Your task to perform on an android device: Empty the shopping cart on bestbuy.com. Add logitech g933 to the cart on bestbuy.com, then select checkout. Image 0: 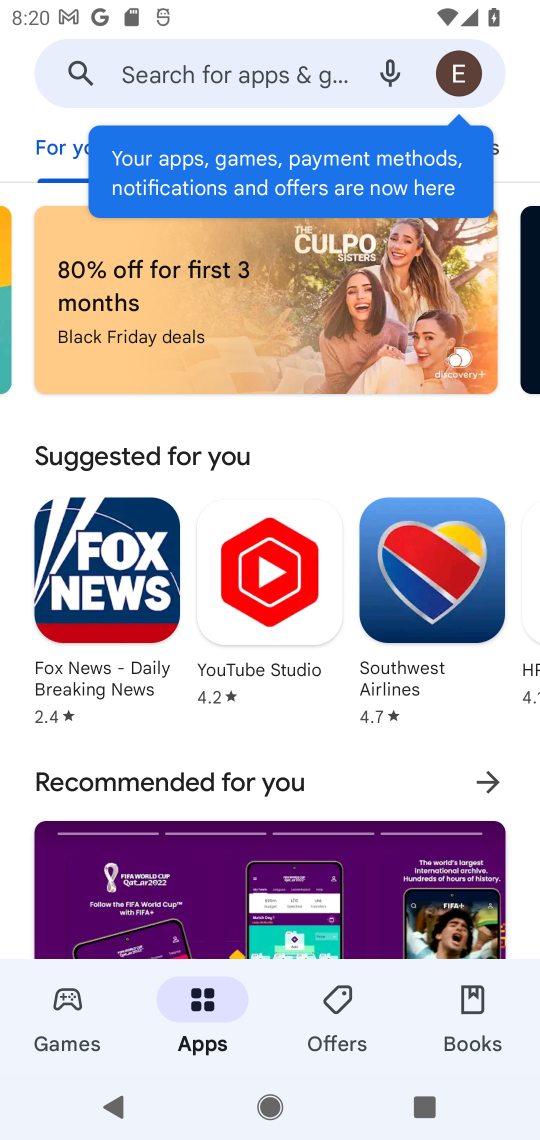
Step 0: press home button
Your task to perform on an android device: Empty the shopping cart on bestbuy.com. Add logitech g933 to the cart on bestbuy.com, then select checkout. Image 1: 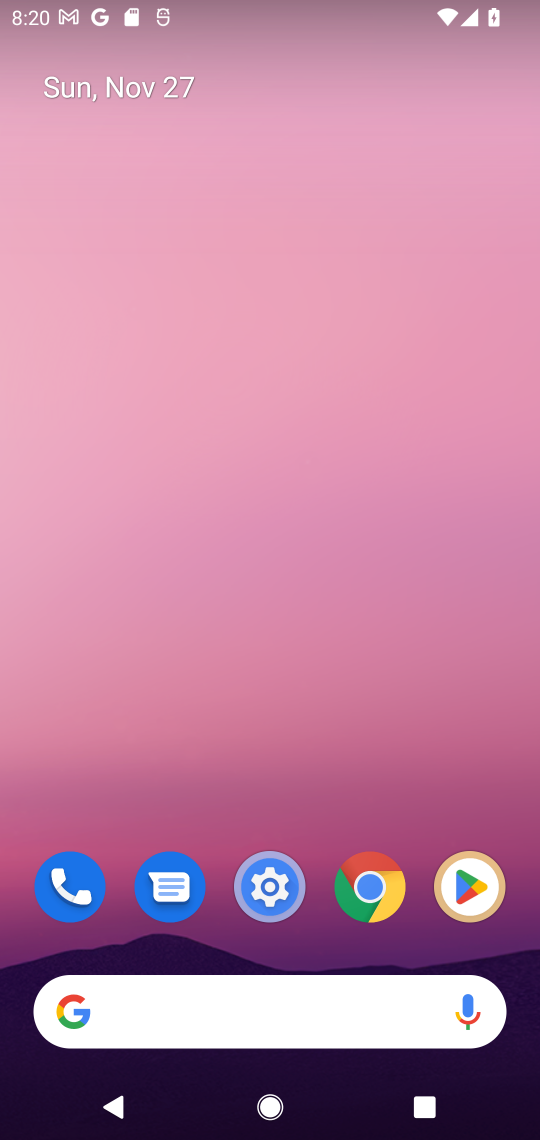
Step 1: click (233, 1045)
Your task to perform on an android device: Empty the shopping cart on bestbuy.com. Add logitech g933 to the cart on bestbuy.com, then select checkout. Image 2: 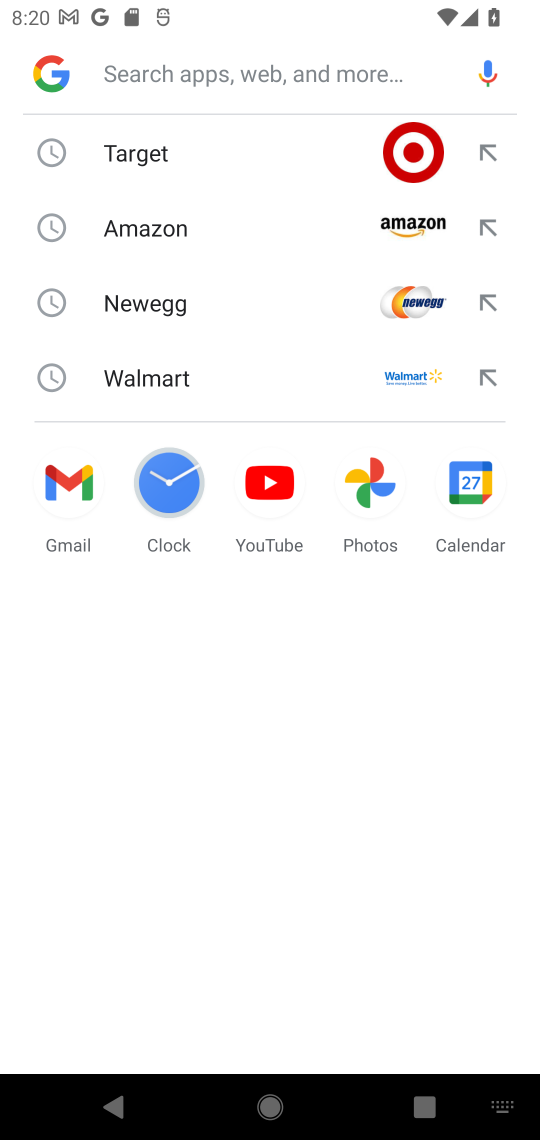
Step 2: type "bestbuy"
Your task to perform on an android device: Empty the shopping cart on bestbuy.com. Add logitech g933 to the cart on bestbuy.com, then select checkout. Image 3: 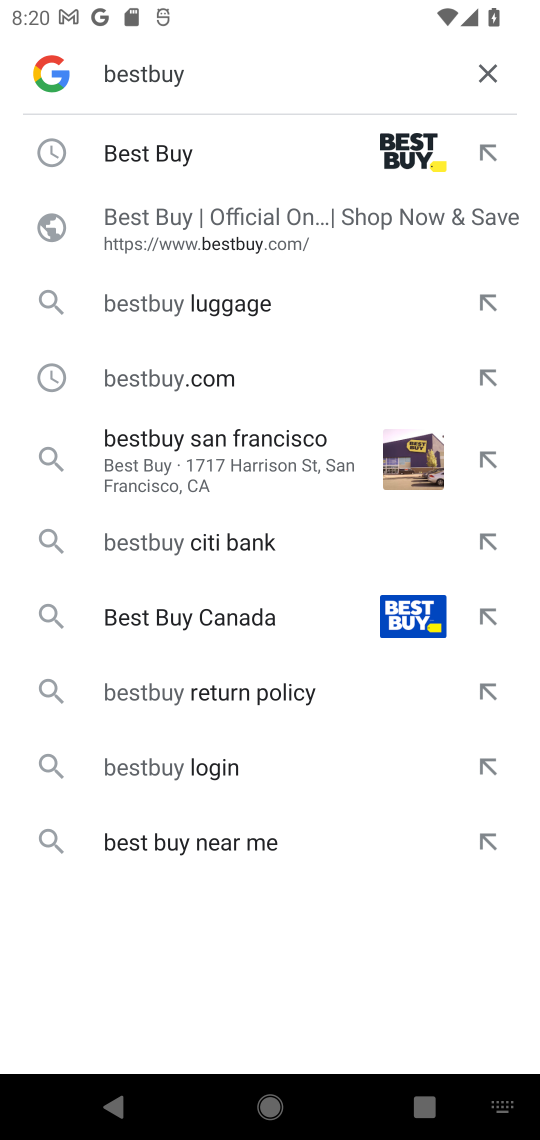
Step 3: click (169, 173)
Your task to perform on an android device: Empty the shopping cart on bestbuy.com. Add logitech g933 to the cart on bestbuy.com, then select checkout. Image 4: 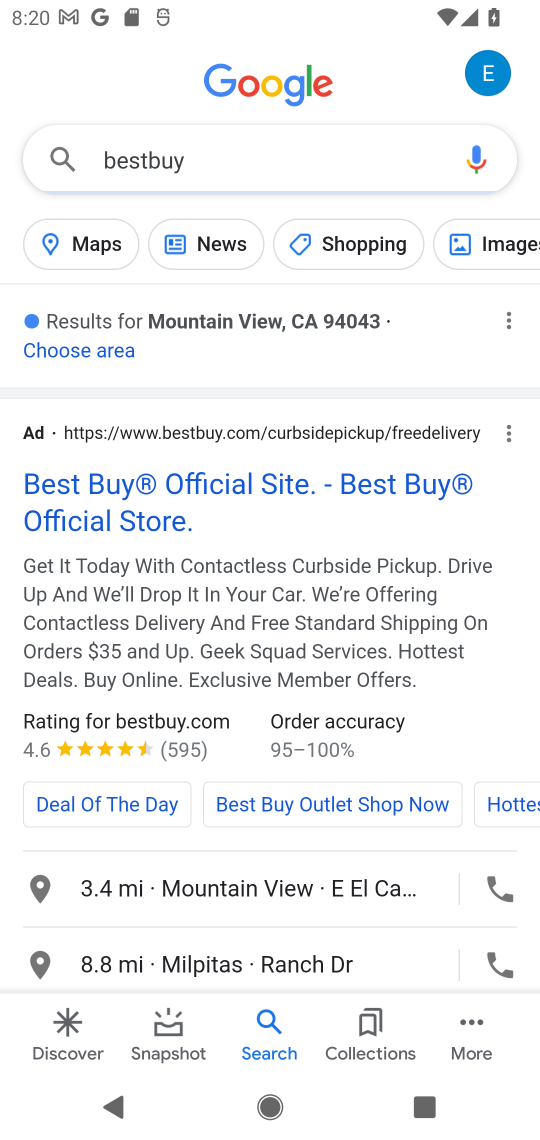
Step 4: click (119, 488)
Your task to perform on an android device: Empty the shopping cart on bestbuy.com. Add logitech g933 to the cart on bestbuy.com, then select checkout. Image 5: 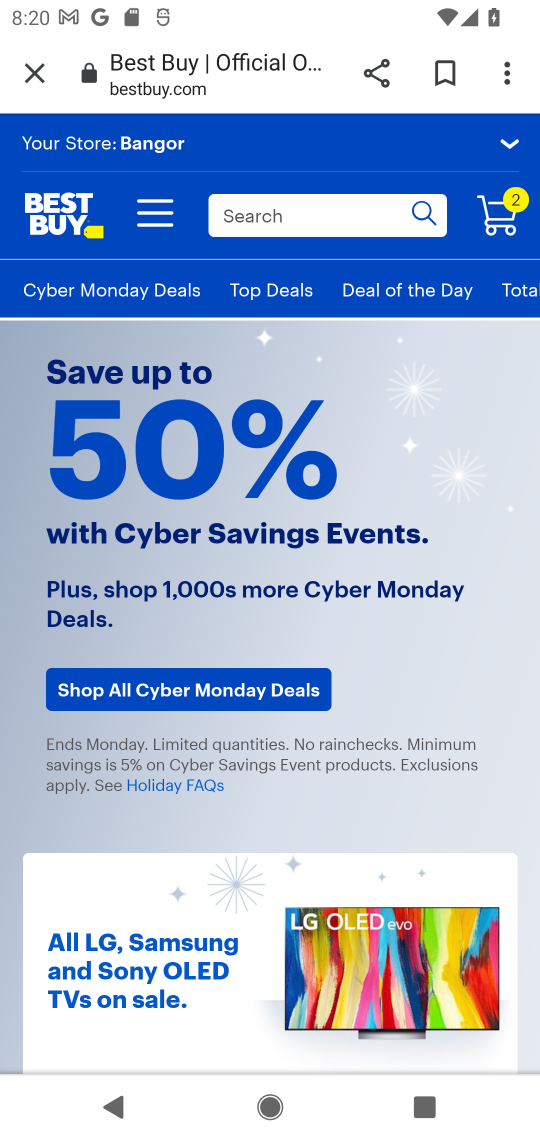
Step 5: click (307, 204)
Your task to perform on an android device: Empty the shopping cart on bestbuy.com. Add logitech g933 to the cart on bestbuy.com, then select checkout. Image 6: 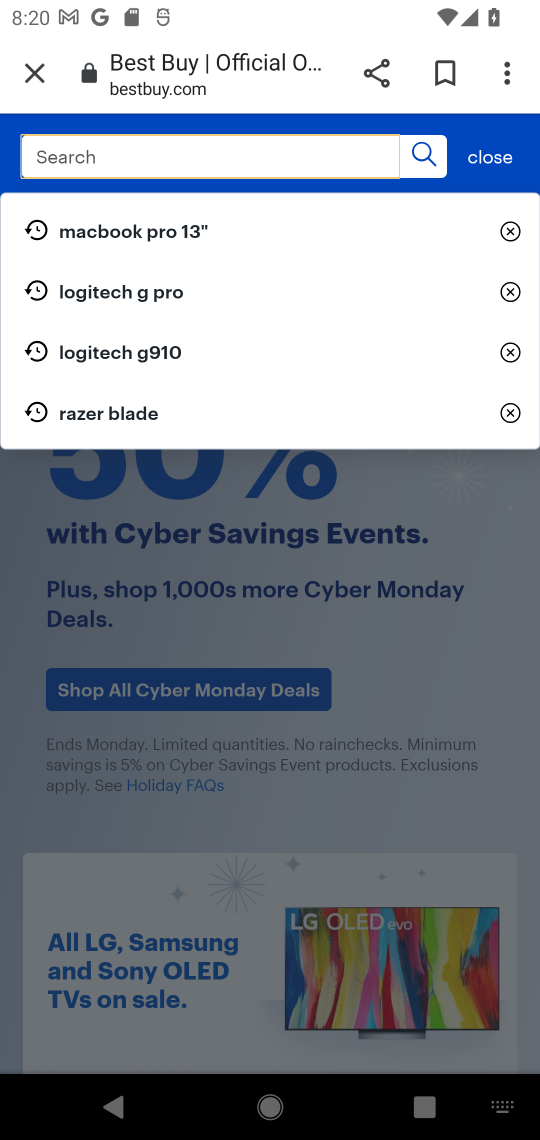
Step 6: type "logitech g933"
Your task to perform on an android device: Empty the shopping cart on bestbuy.com. Add logitech g933 to the cart on bestbuy.com, then select checkout. Image 7: 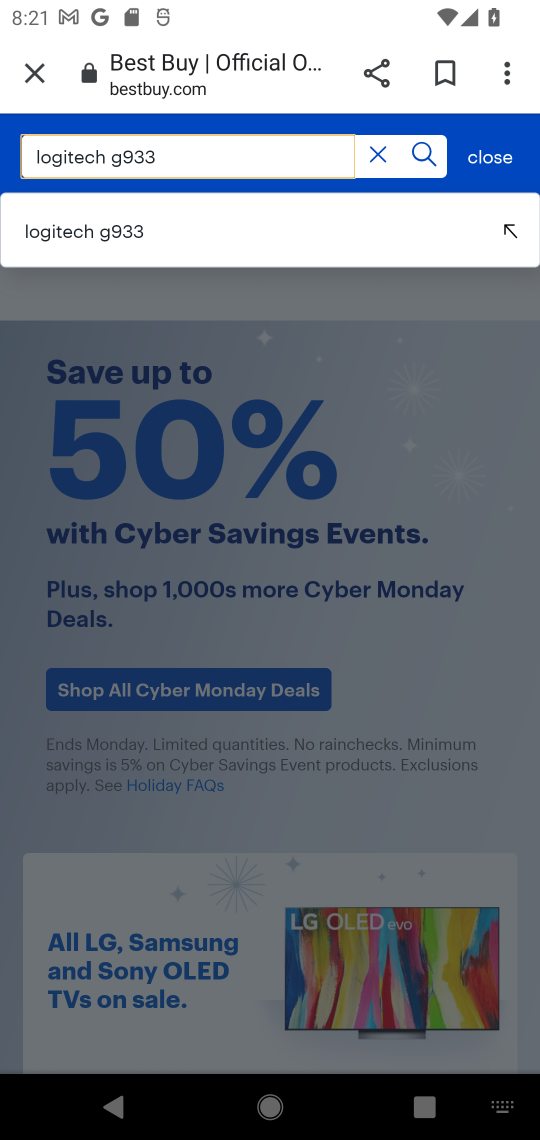
Step 7: click (89, 263)
Your task to perform on an android device: Empty the shopping cart on bestbuy.com. Add logitech g933 to the cart on bestbuy.com, then select checkout. Image 8: 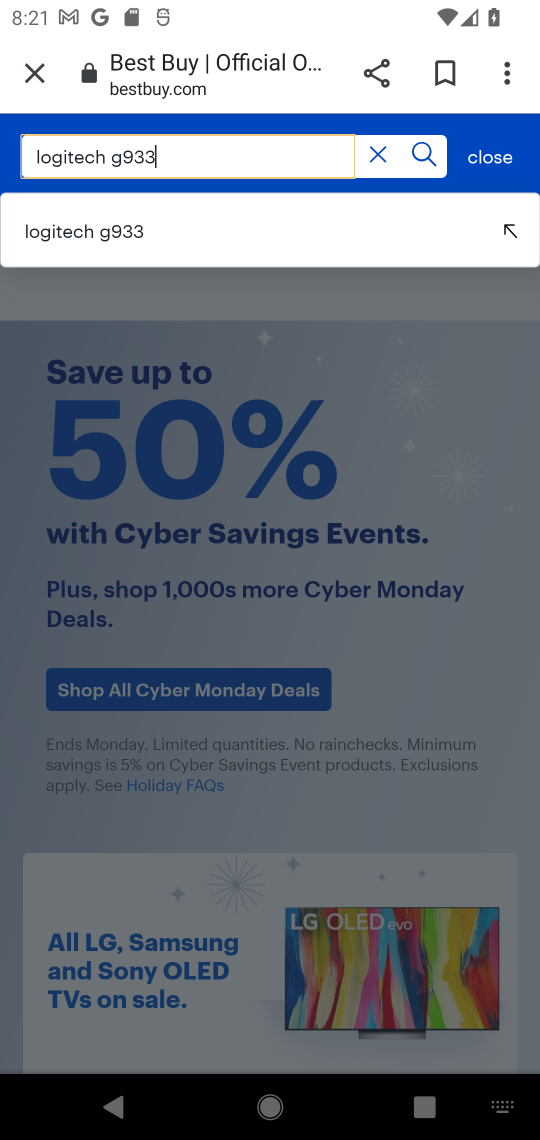
Step 8: click (89, 247)
Your task to perform on an android device: Empty the shopping cart on bestbuy.com. Add logitech g933 to the cart on bestbuy.com, then select checkout. Image 9: 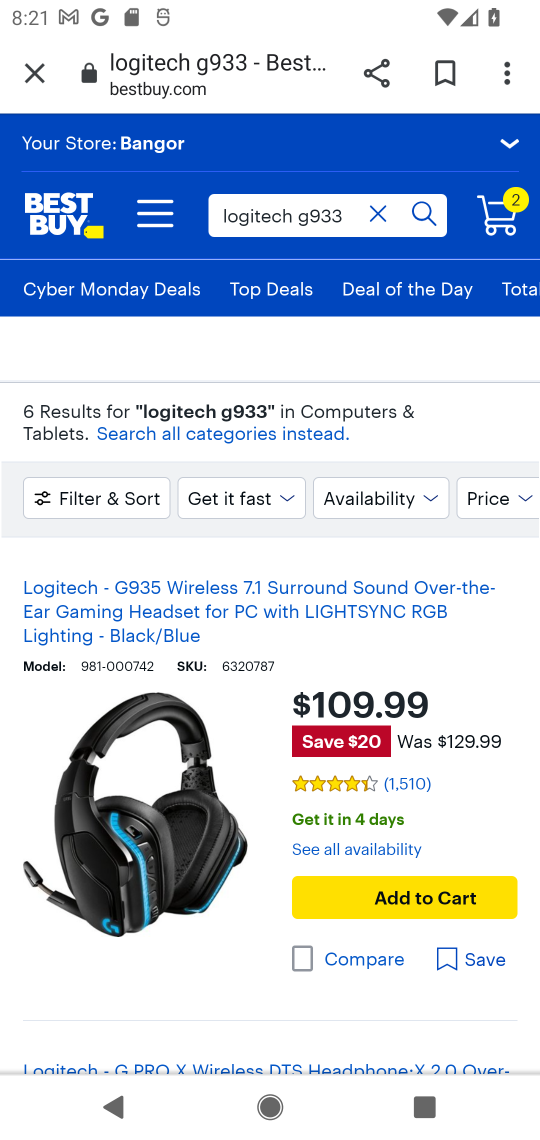
Step 9: click (183, 816)
Your task to perform on an android device: Empty the shopping cart on bestbuy.com. Add logitech g933 to the cart on bestbuy.com, then select checkout. Image 10: 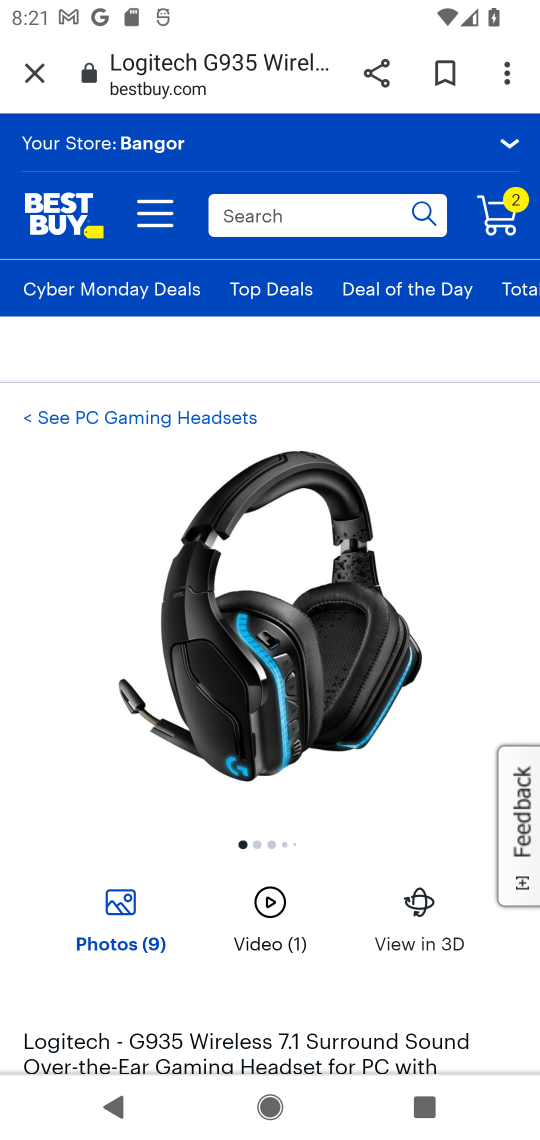
Step 10: drag from (212, 1004) to (469, 164)
Your task to perform on an android device: Empty the shopping cart on bestbuy.com. Add logitech g933 to the cart on bestbuy.com, then select checkout. Image 11: 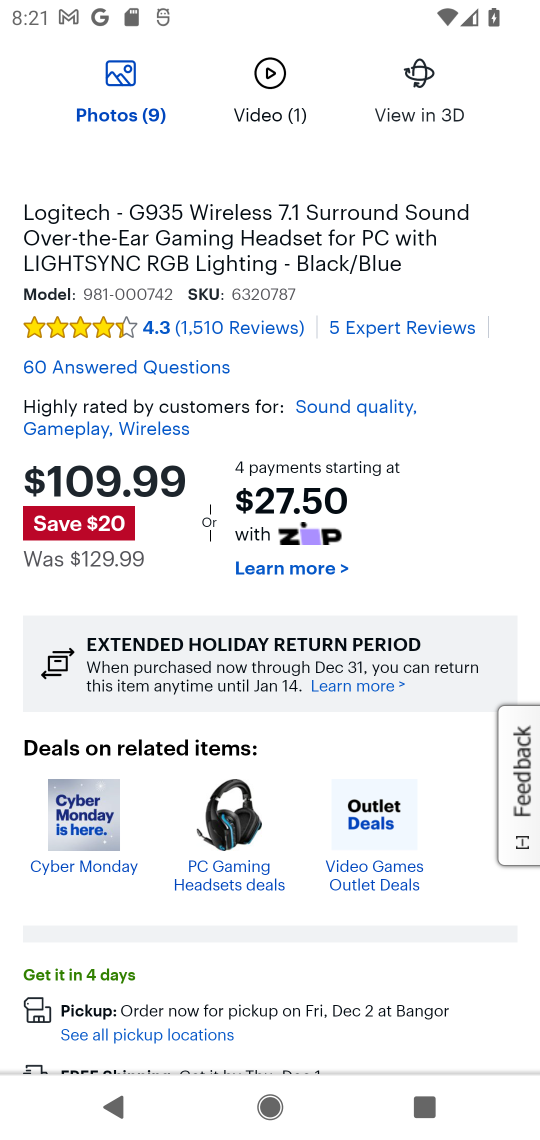
Step 11: drag from (277, 941) to (336, 243)
Your task to perform on an android device: Empty the shopping cart on bestbuy.com. Add logitech g933 to the cart on bestbuy.com, then select checkout. Image 12: 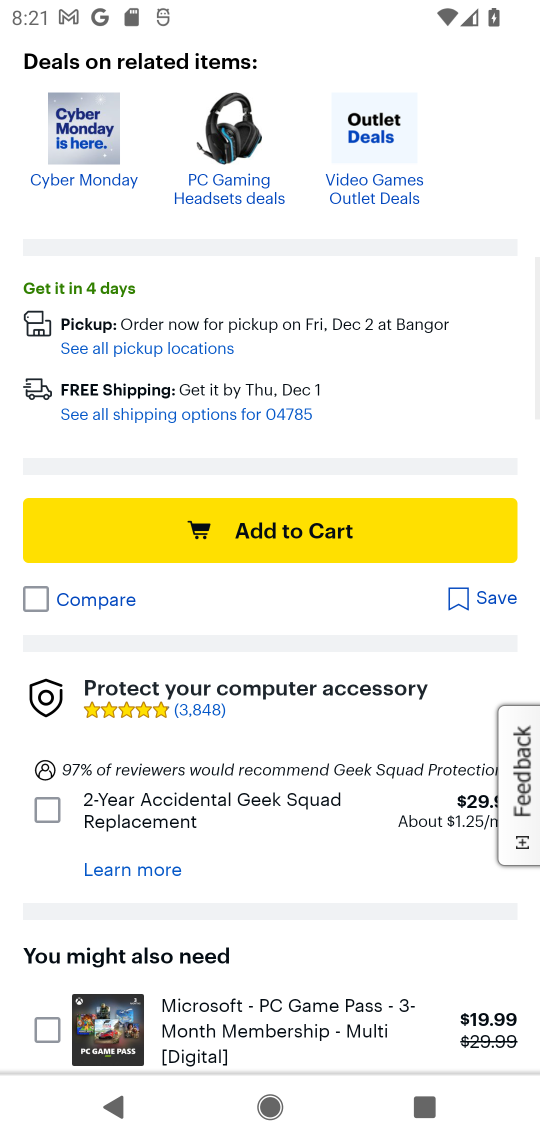
Step 12: click (384, 529)
Your task to perform on an android device: Empty the shopping cart on bestbuy.com. Add logitech g933 to the cart on bestbuy.com, then select checkout. Image 13: 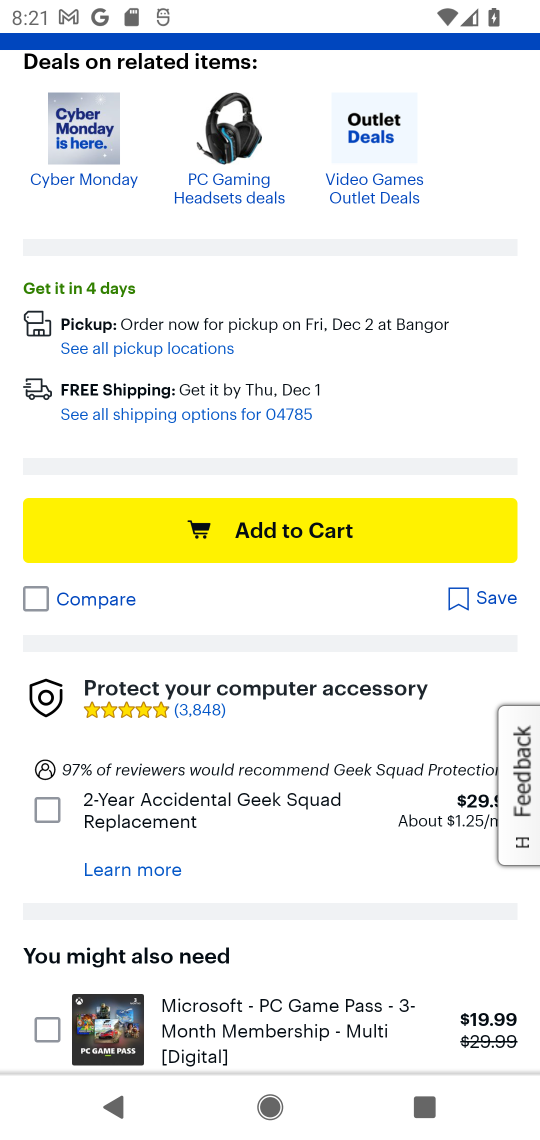
Step 13: click (384, 529)
Your task to perform on an android device: Empty the shopping cart on bestbuy.com. Add logitech g933 to the cart on bestbuy.com, then select checkout. Image 14: 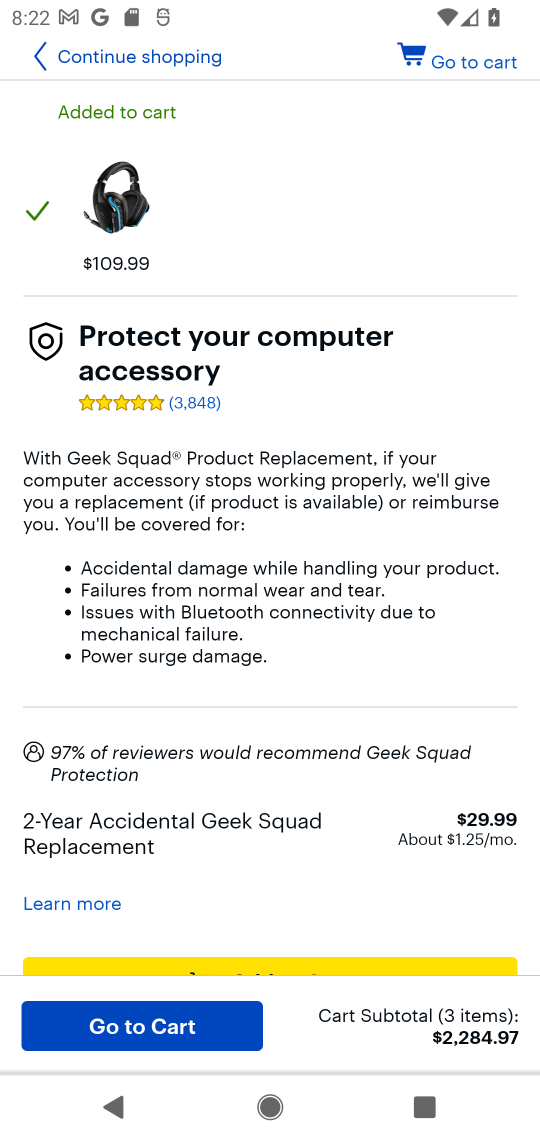
Step 14: click (67, 1004)
Your task to perform on an android device: Empty the shopping cart on bestbuy.com. Add logitech g933 to the cart on bestbuy.com, then select checkout. Image 15: 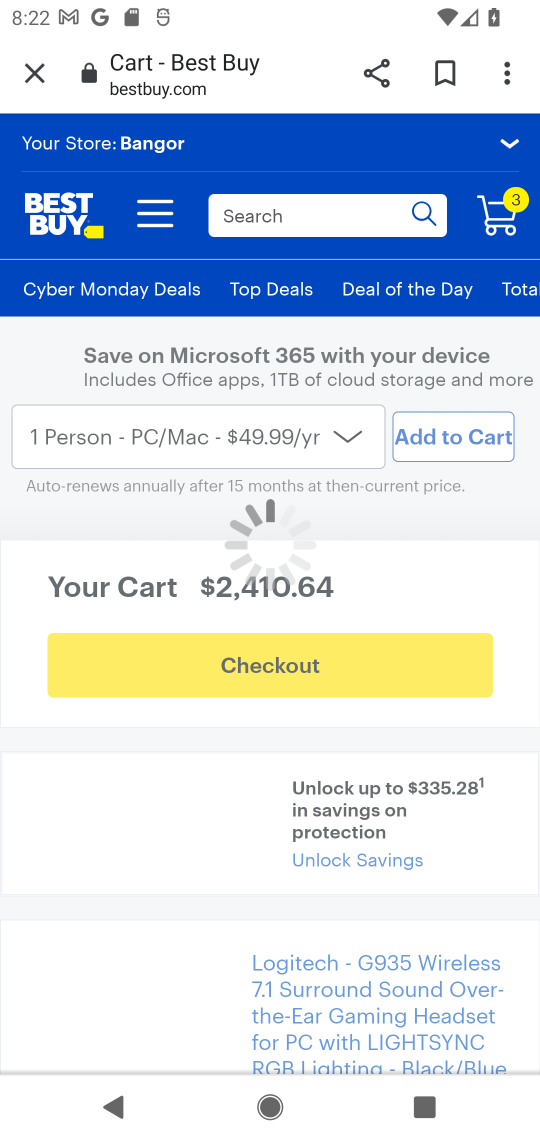
Step 15: task complete